Your task to perform on an android device: Go to Amazon Image 0: 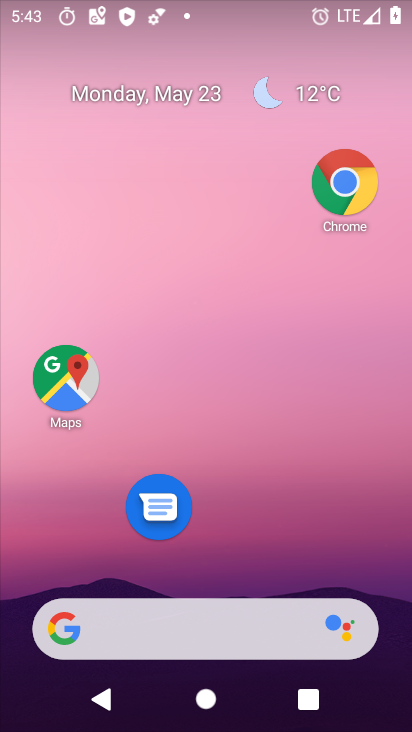
Step 0: click (349, 164)
Your task to perform on an android device: Go to Amazon Image 1: 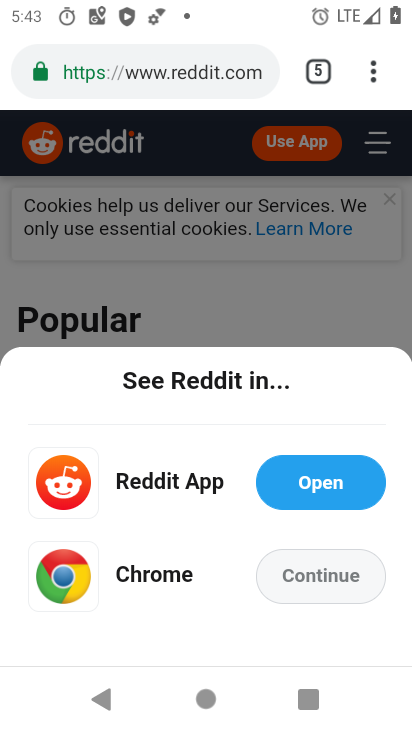
Step 1: click (382, 70)
Your task to perform on an android device: Go to Amazon Image 2: 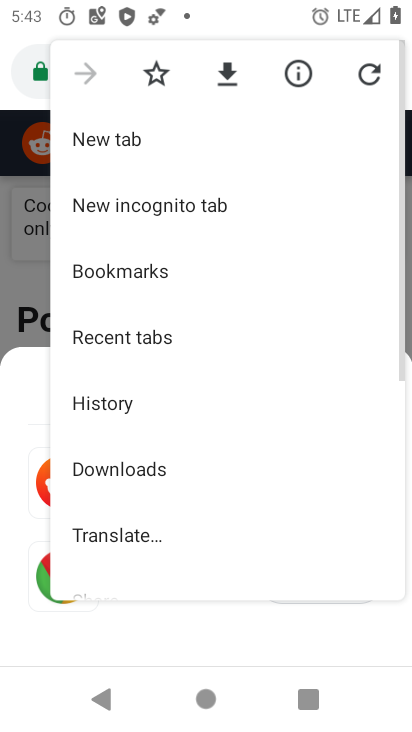
Step 2: click (124, 141)
Your task to perform on an android device: Go to Amazon Image 3: 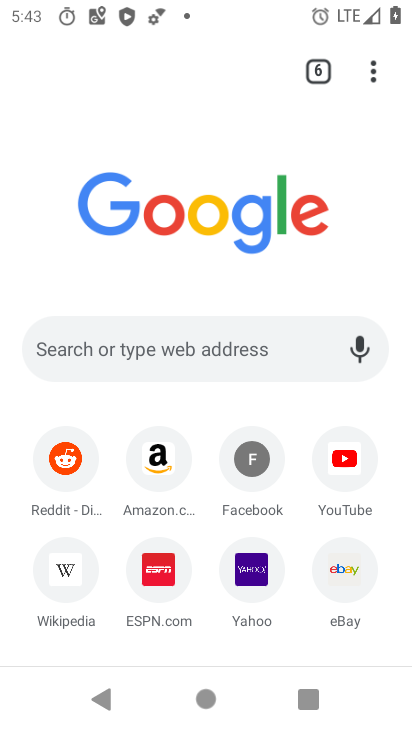
Step 3: click (165, 449)
Your task to perform on an android device: Go to Amazon Image 4: 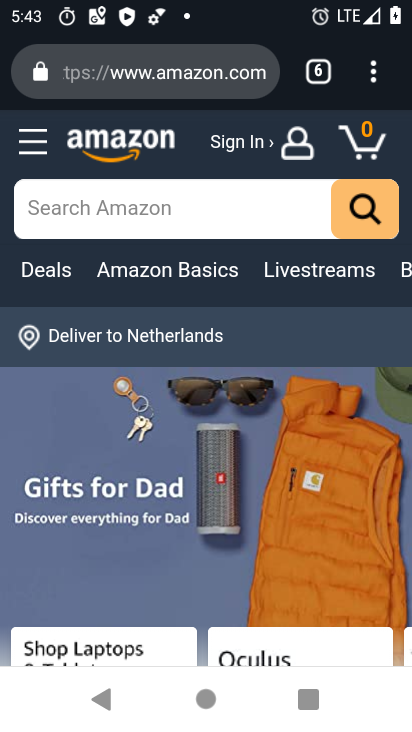
Step 4: task complete